Your task to perform on an android device: Open settings Image 0: 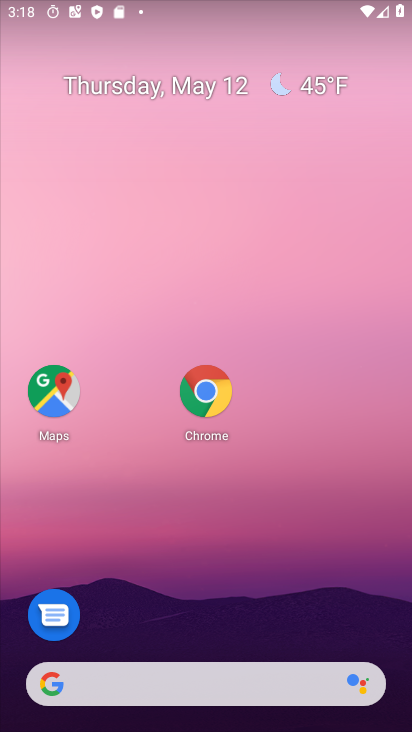
Step 0: drag from (232, 554) to (249, 96)
Your task to perform on an android device: Open settings Image 1: 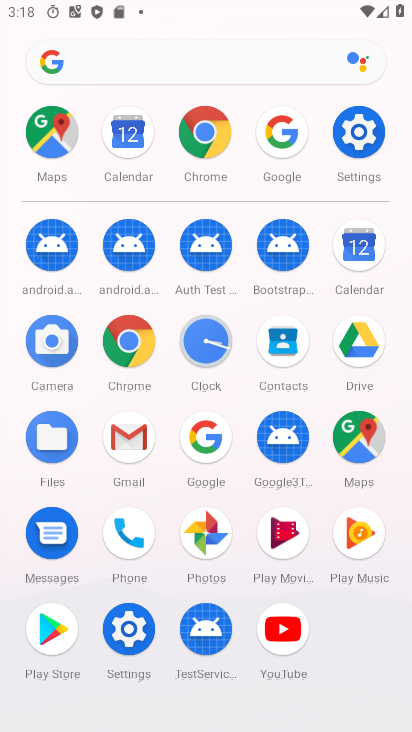
Step 1: click (355, 139)
Your task to perform on an android device: Open settings Image 2: 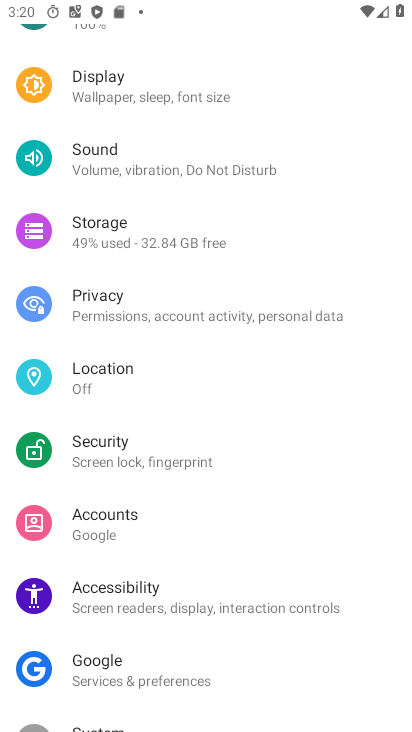
Step 2: task complete